Your task to perform on an android device: delete a single message in the gmail app Image 0: 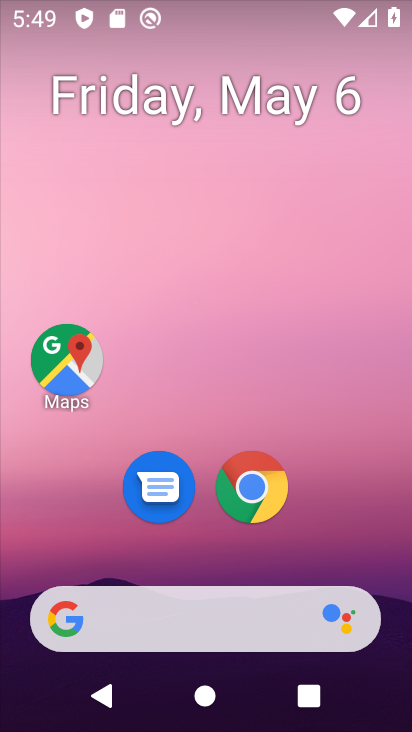
Step 0: drag from (307, 554) to (335, 122)
Your task to perform on an android device: delete a single message in the gmail app Image 1: 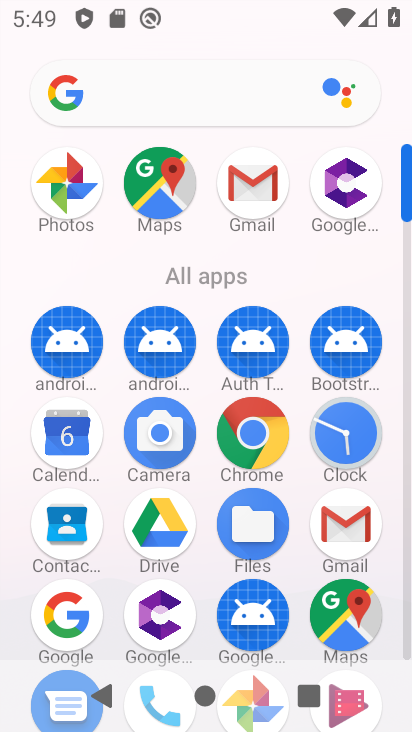
Step 1: click (249, 171)
Your task to perform on an android device: delete a single message in the gmail app Image 2: 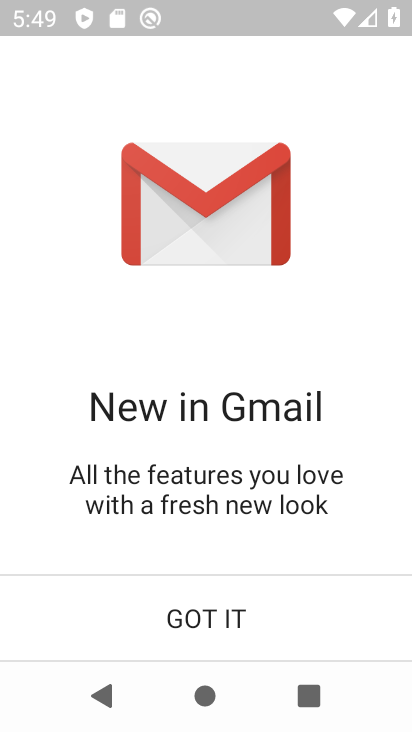
Step 2: click (198, 620)
Your task to perform on an android device: delete a single message in the gmail app Image 3: 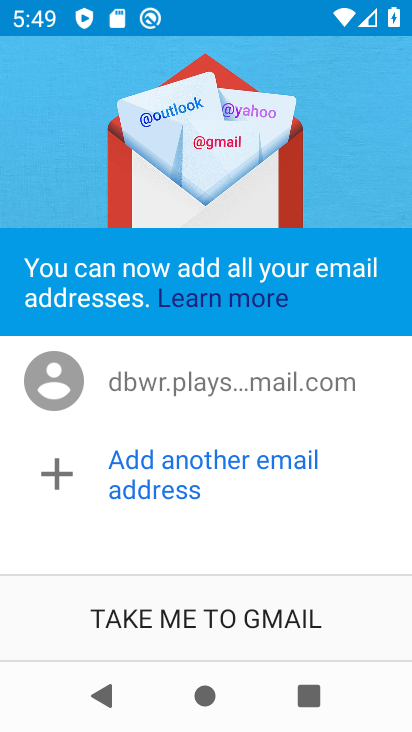
Step 3: click (193, 621)
Your task to perform on an android device: delete a single message in the gmail app Image 4: 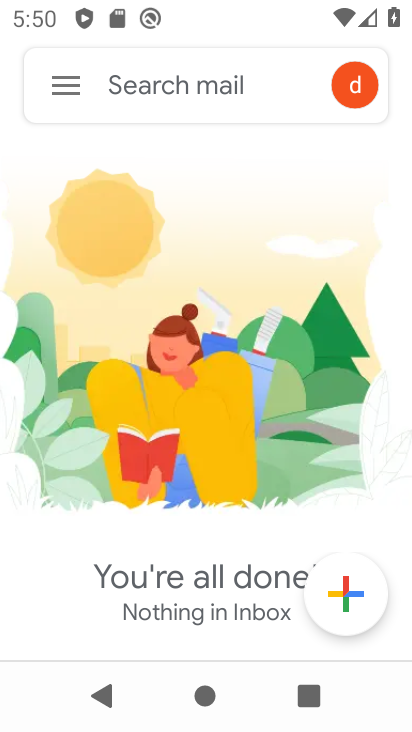
Step 4: click (55, 92)
Your task to perform on an android device: delete a single message in the gmail app Image 5: 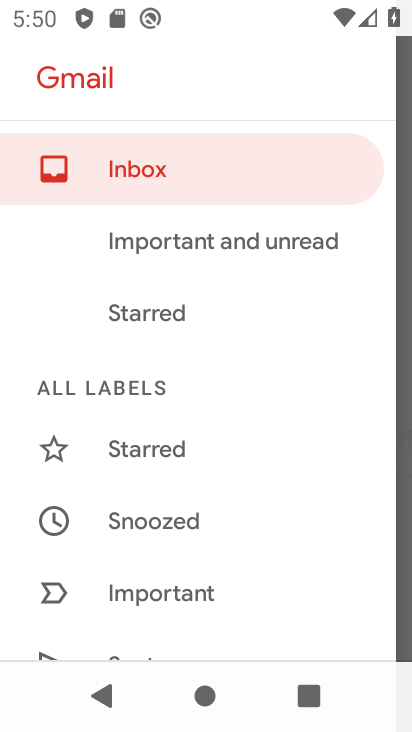
Step 5: click (151, 174)
Your task to perform on an android device: delete a single message in the gmail app Image 6: 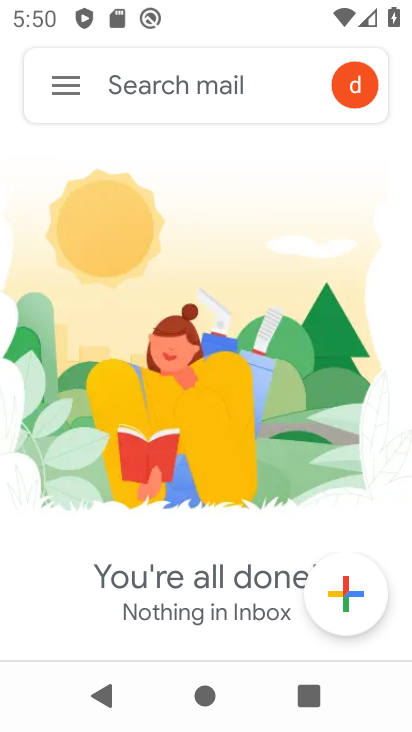
Step 6: task complete